Your task to perform on an android device: toggle priority inbox in the gmail app Image 0: 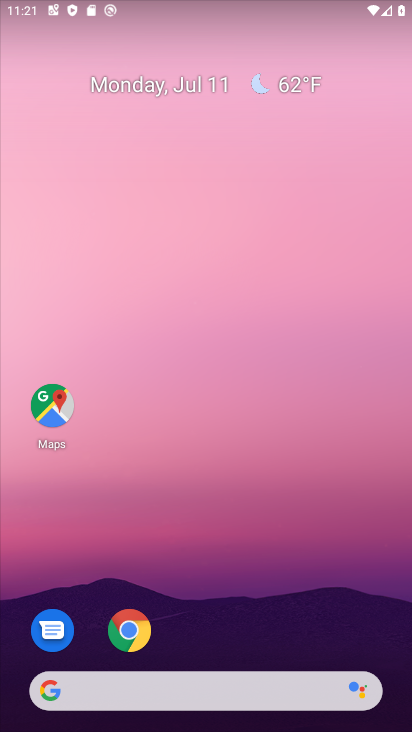
Step 0: drag from (239, 639) to (250, 50)
Your task to perform on an android device: toggle priority inbox in the gmail app Image 1: 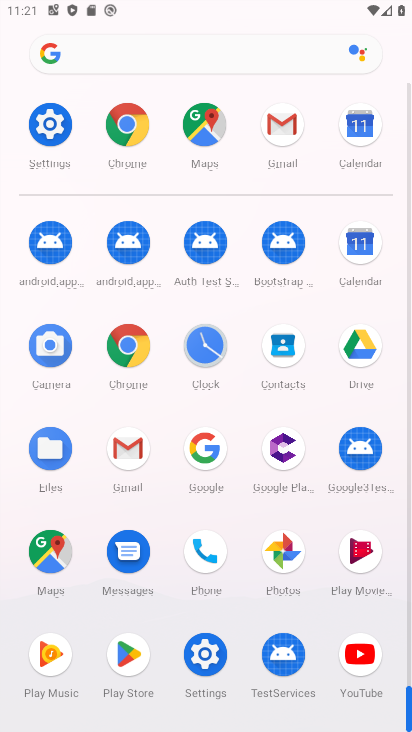
Step 1: click (123, 456)
Your task to perform on an android device: toggle priority inbox in the gmail app Image 2: 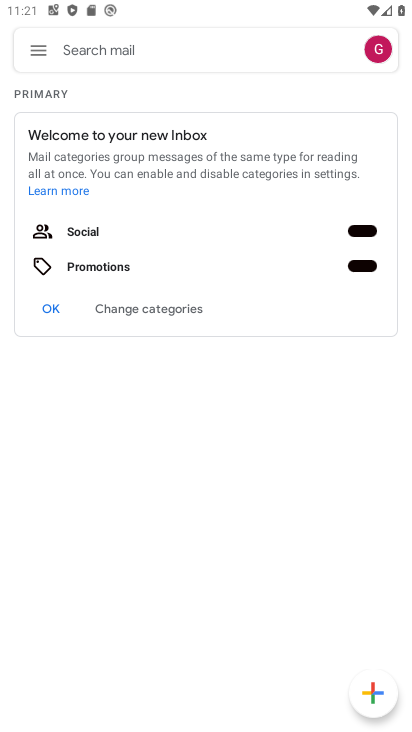
Step 2: click (39, 42)
Your task to perform on an android device: toggle priority inbox in the gmail app Image 3: 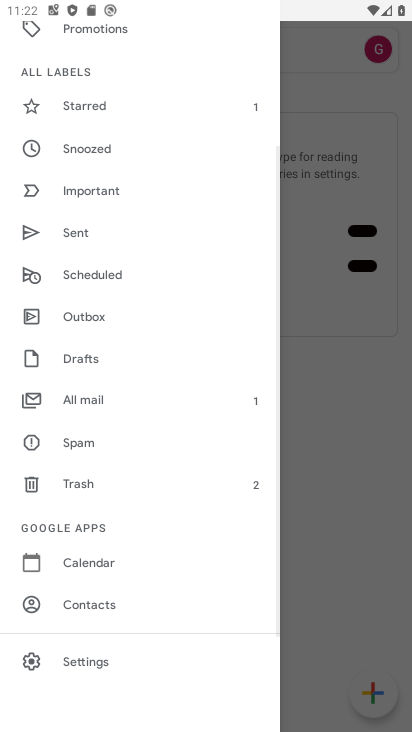
Step 3: click (93, 657)
Your task to perform on an android device: toggle priority inbox in the gmail app Image 4: 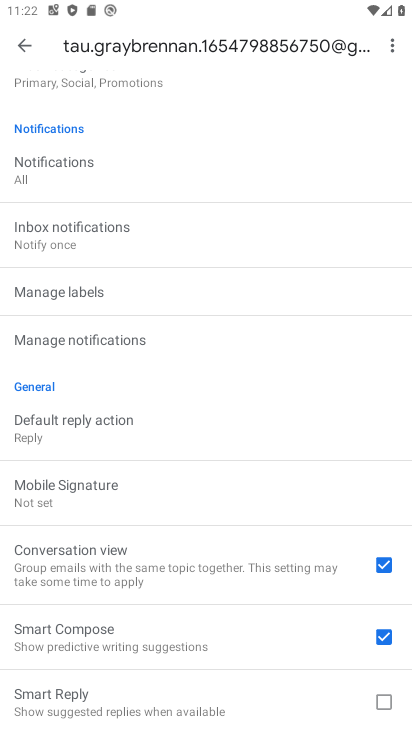
Step 4: drag from (82, 166) to (84, 728)
Your task to perform on an android device: toggle priority inbox in the gmail app Image 5: 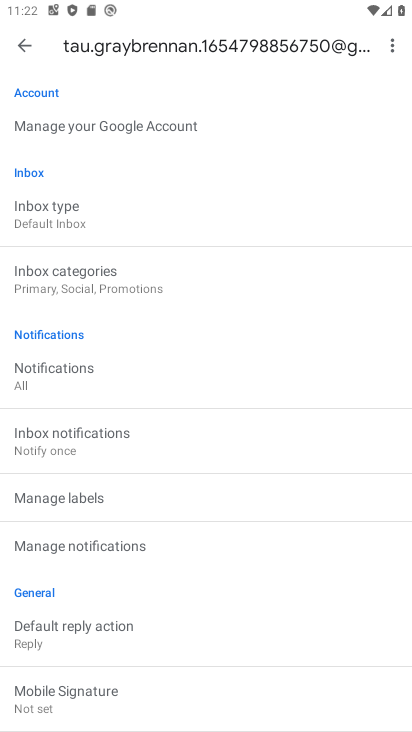
Step 5: click (45, 214)
Your task to perform on an android device: toggle priority inbox in the gmail app Image 6: 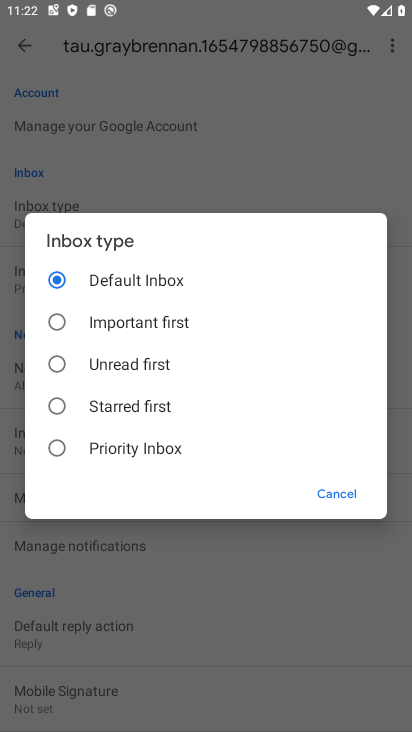
Step 6: click (60, 449)
Your task to perform on an android device: toggle priority inbox in the gmail app Image 7: 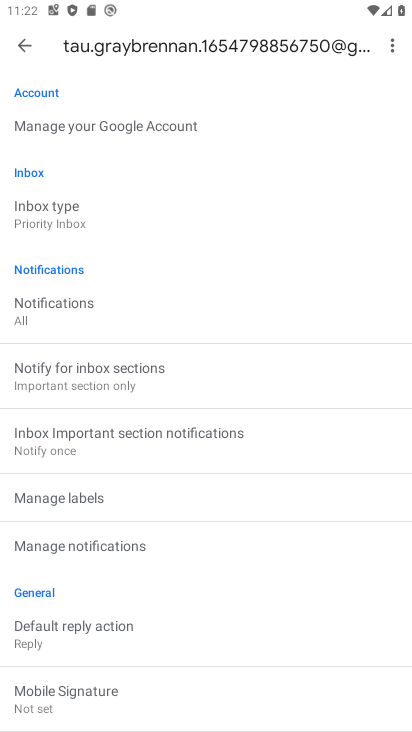
Step 7: task complete